Your task to perform on an android device: turn on sleep mode Image 0: 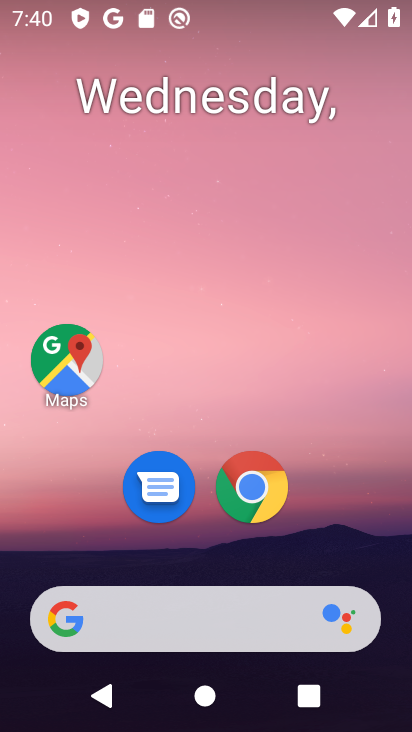
Step 0: drag from (204, 637) to (175, 6)
Your task to perform on an android device: turn on sleep mode Image 1: 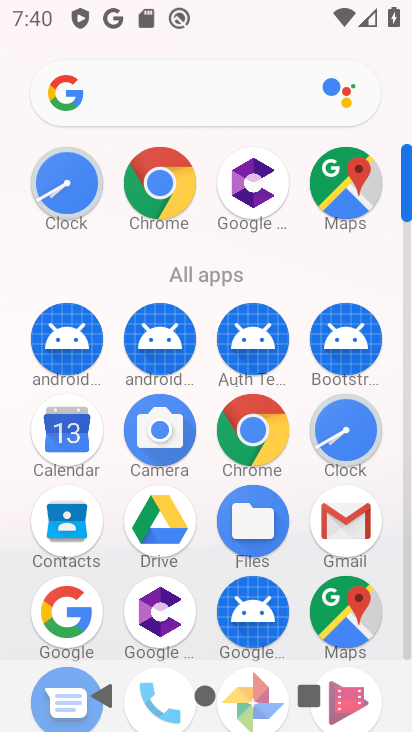
Step 1: drag from (258, 511) to (254, 140)
Your task to perform on an android device: turn on sleep mode Image 2: 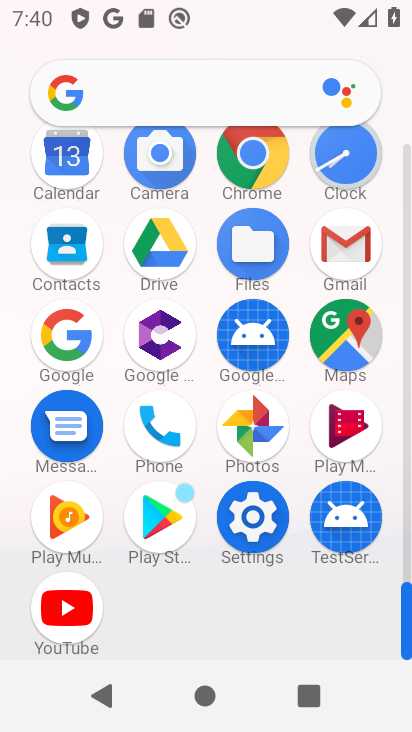
Step 2: click (262, 523)
Your task to perform on an android device: turn on sleep mode Image 3: 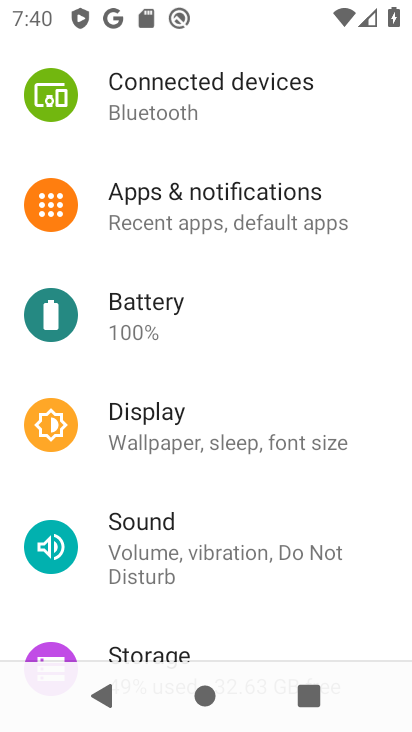
Step 3: drag from (212, 545) to (239, 218)
Your task to perform on an android device: turn on sleep mode Image 4: 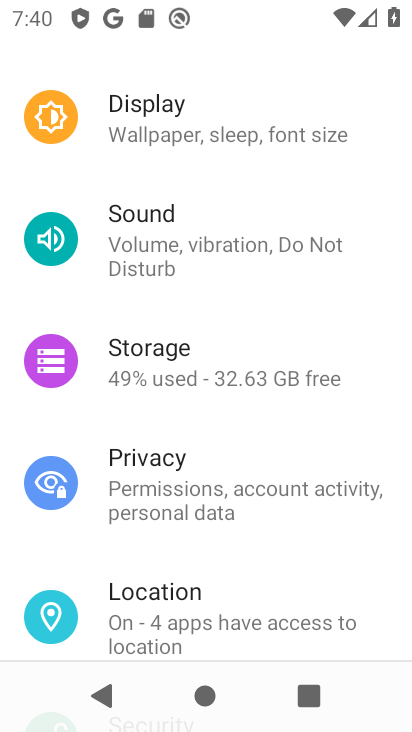
Step 4: click (209, 141)
Your task to perform on an android device: turn on sleep mode Image 5: 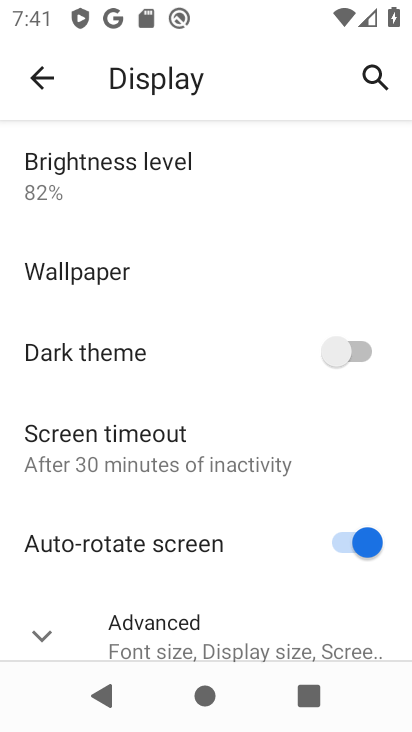
Step 5: click (154, 619)
Your task to perform on an android device: turn on sleep mode Image 6: 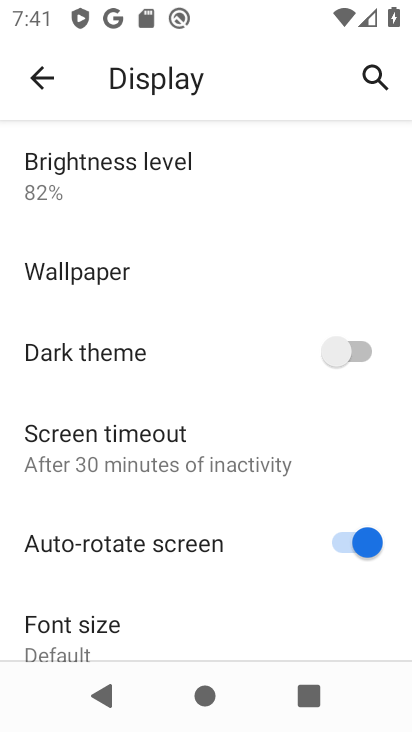
Step 6: task complete